Your task to perform on an android device: Open Google Image 0: 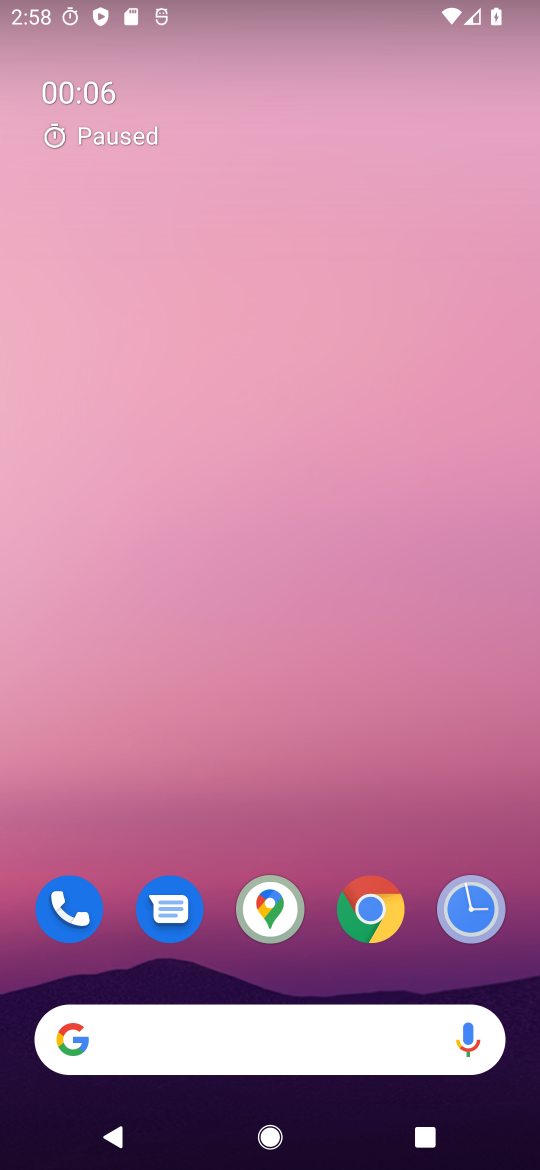
Step 0: click (225, 1028)
Your task to perform on an android device: Open Google Image 1: 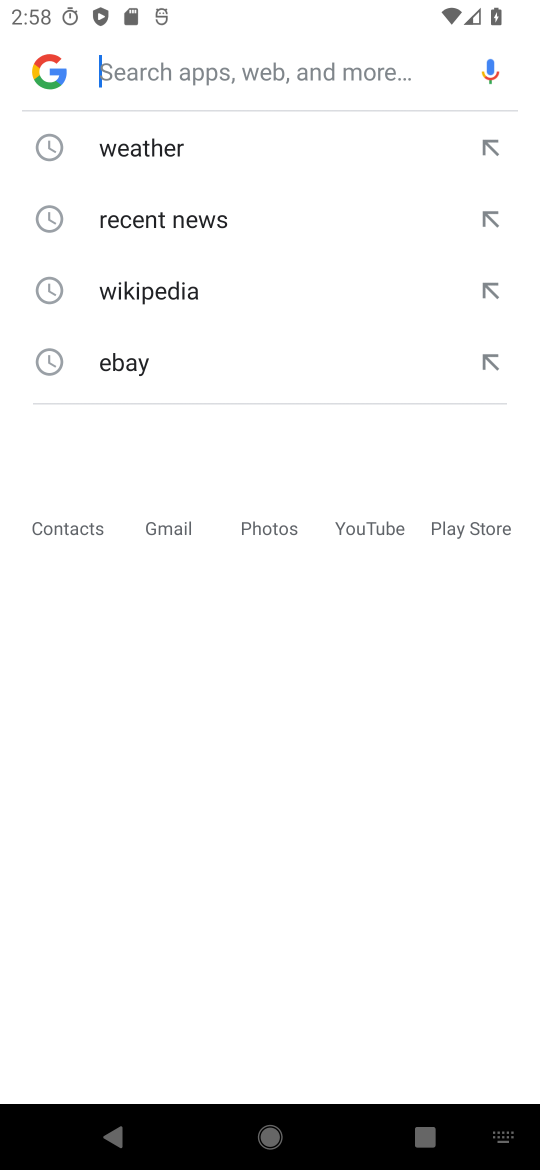
Step 1: task complete